Your task to perform on an android device: allow notifications from all sites in the chrome app Image 0: 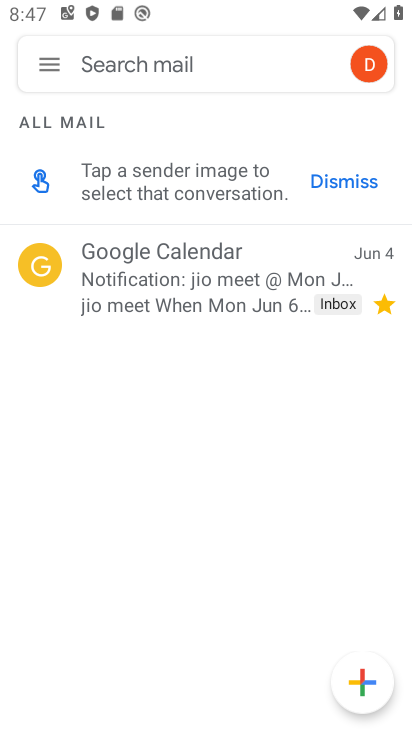
Step 0: task complete